Your task to perform on an android device: Search for vegetarian restaurants on Maps Image 0: 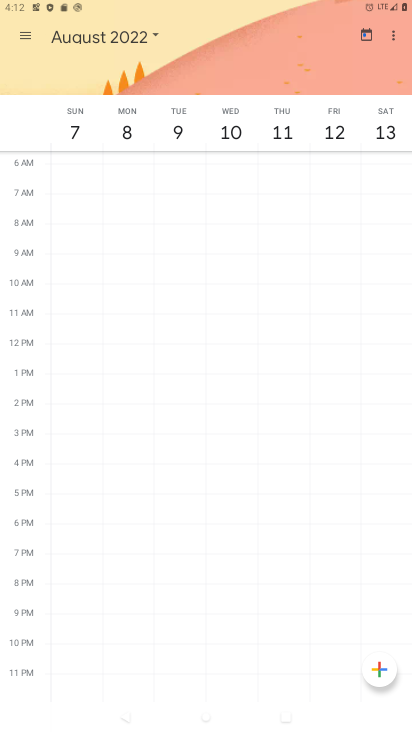
Step 0: press home button
Your task to perform on an android device: Search for vegetarian restaurants on Maps Image 1: 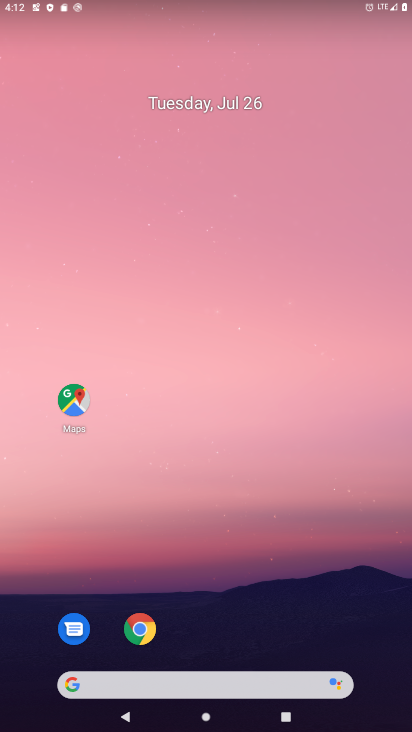
Step 1: drag from (232, 695) to (243, 106)
Your task to perform on an android device: Search for vegetarian restaurants on Maps Image 2: 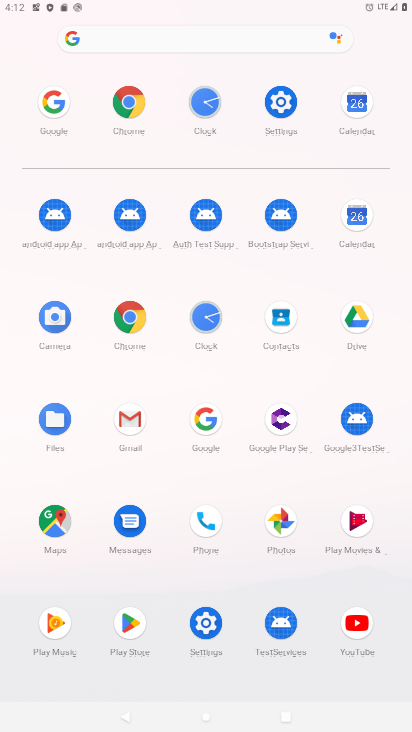
Step 2: click (53, 522)
Your task to perform on an android device: Search for vegetarian restaurants on Maps Image 3: 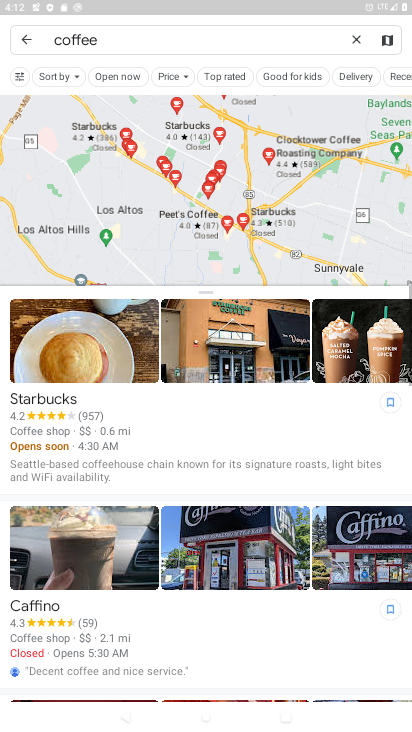
Step 3: click (355, 39)
Your task to perform on an android device: Search for vegetarian restaurants on Maps Image 4: 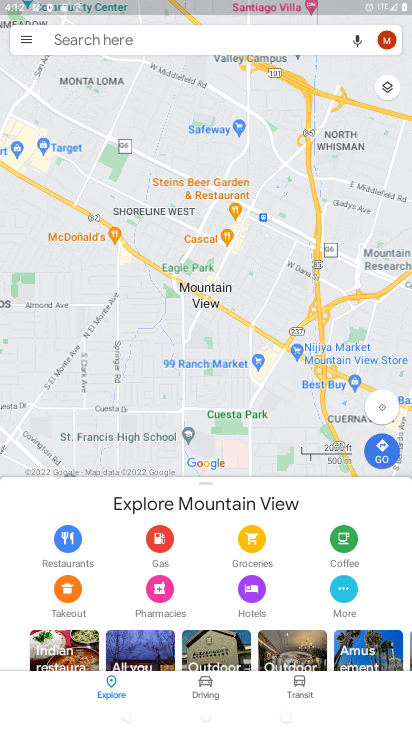
Step 4: click (179, 39)
Your task to perform on an android device: Search for vegetarian restaurants on Maps Image 5: 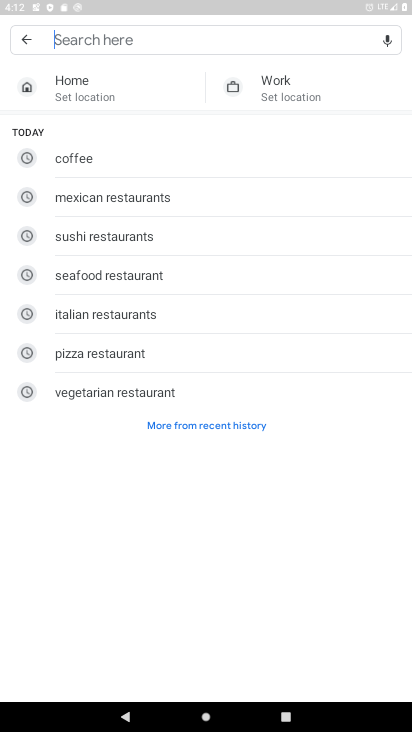
Step 5: type "vegetarian restaurants"
Your task to perform on an android device: Search for vegetarian restaurants on Maps Image 6: 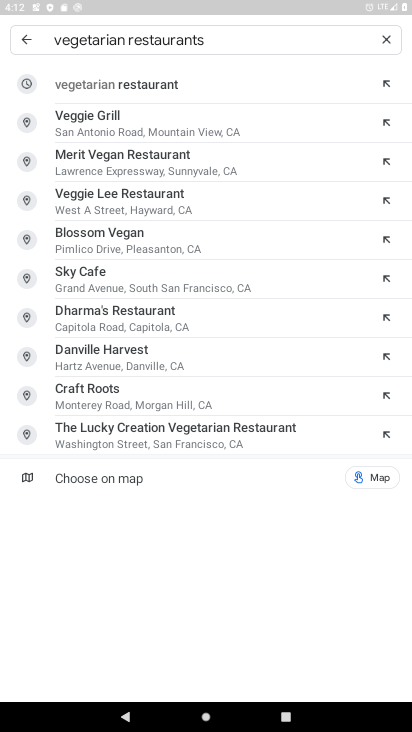
Step 6: click (138, 83)
Your task to perform on an android device: Search for vegetarian restaurants on Maps Image 7: 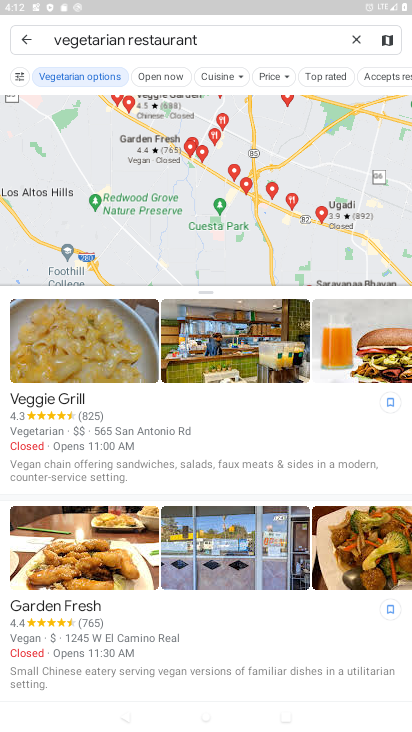
Step 7: task complete